Your task to perform on an android device: Go to ESPN.com Image 0: 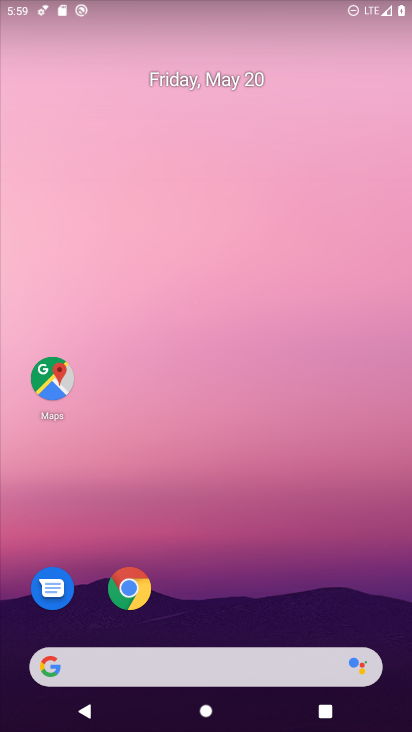
Step 0: click (125, 590)
Your task to perform on an android device: Go to ESPN.com Image 1: 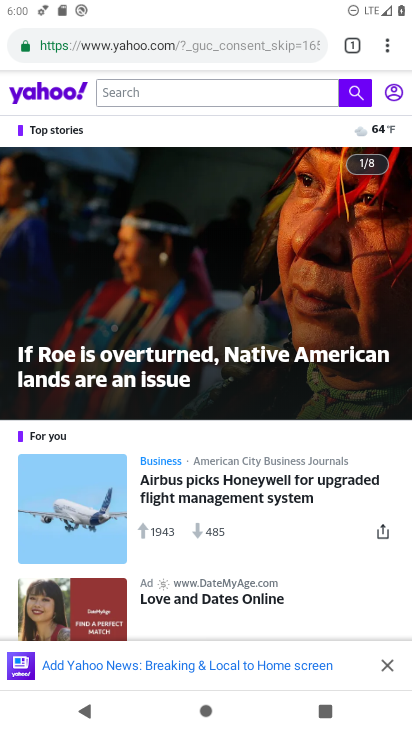
Step 1: click (245, 46)
Your task to perform on an android device: Go to ESPN.com Image 2: 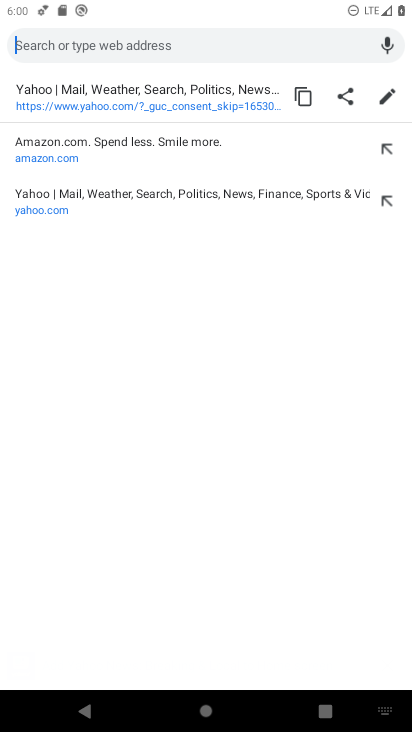
Step 2: click (106, 145)
Your task to perform on an android device: Go to ESPN.com Image 3: 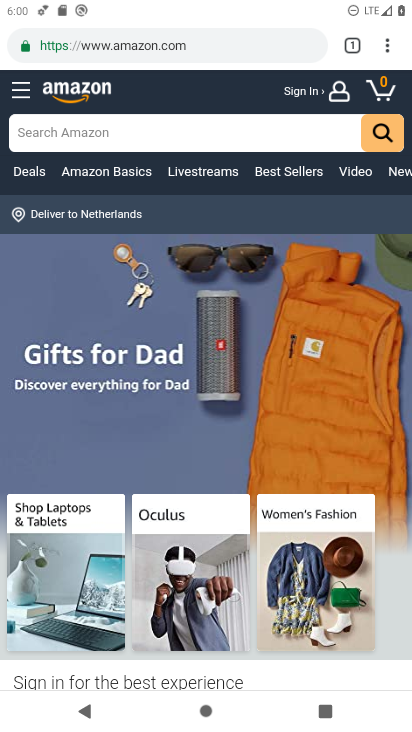
Step 3: task complete